Your task to perform on an android device: Open calendar and show me the second week of next month Image 0: 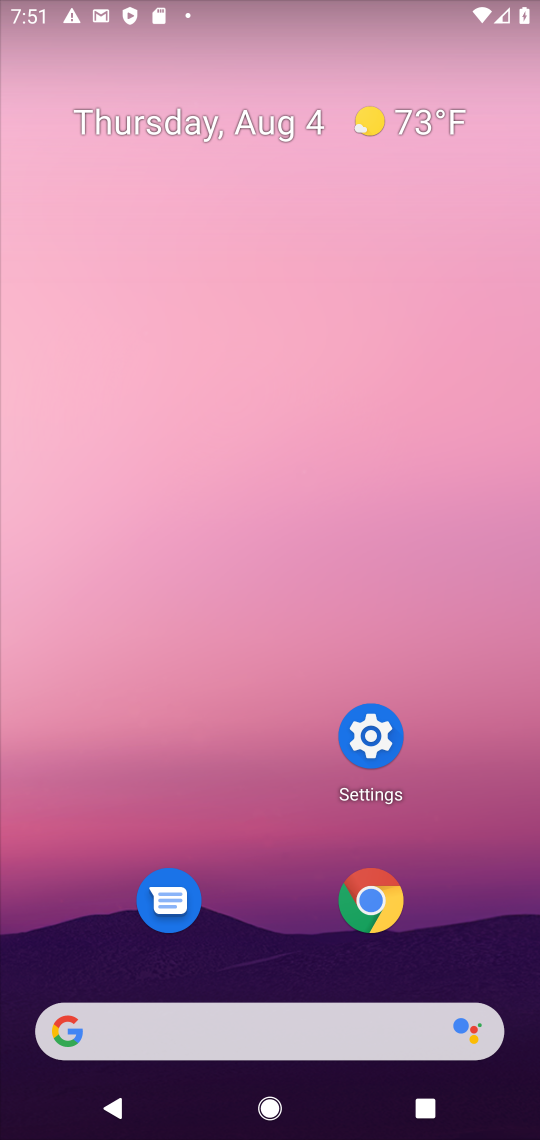
Step 0: drag from (289, 1032) to (536, 193)
Your task to perform on an android device: Open calendar and show me the second week of next month Image 1: 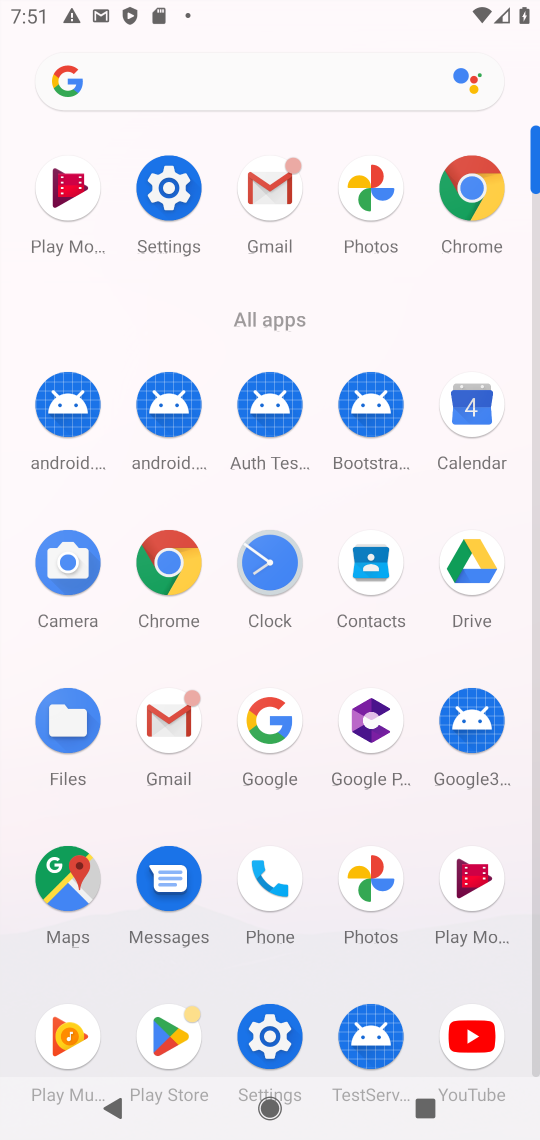
Step 1: click (480, 403)
Your task to perform on an android device: Open calendar and show me the second week of next month Image 2: 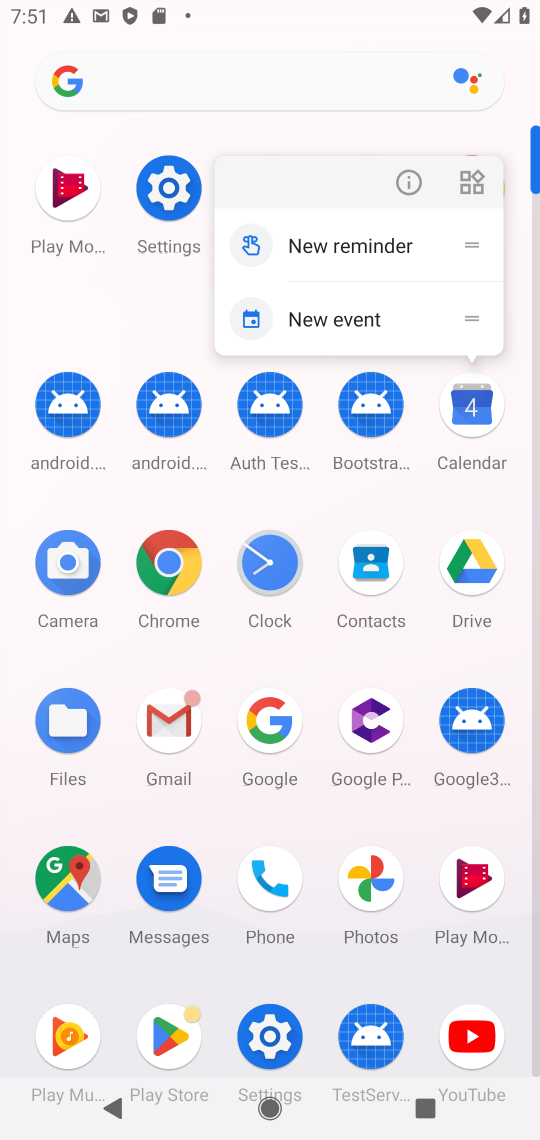
Step 2: click (463, 400)
Your task to perform on an android device: Open calendar and show me the second week of next month Image 3: 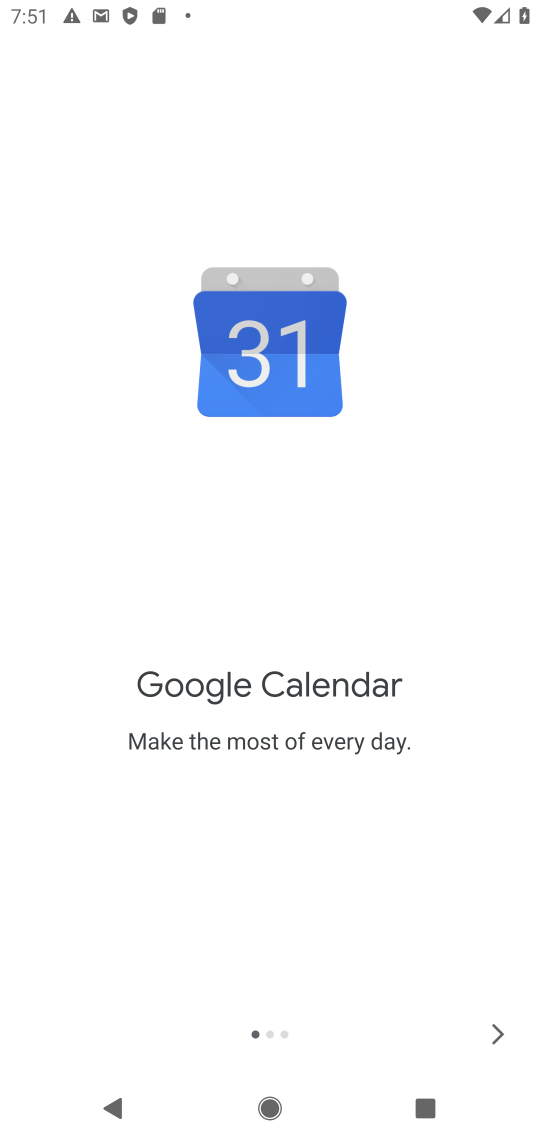
Step 3: click (495, 1031)
Your task to perform on an android device: Open calendar and show me the second week of next month Image 4: 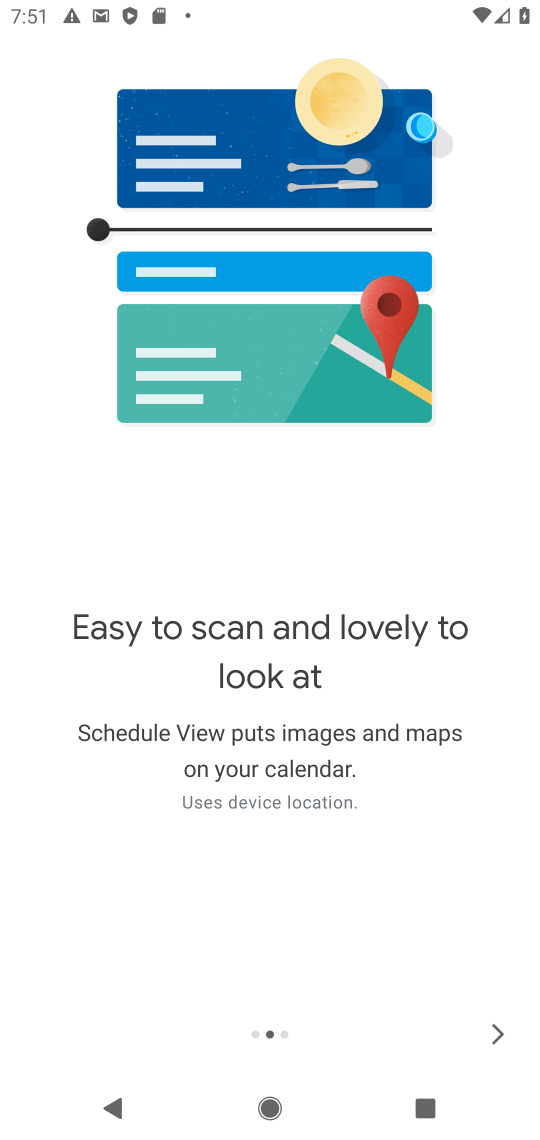
Step 4: click (492, 1026)
Your task to perform on an android device: Open calendar and show me the second week of next month Image 5: 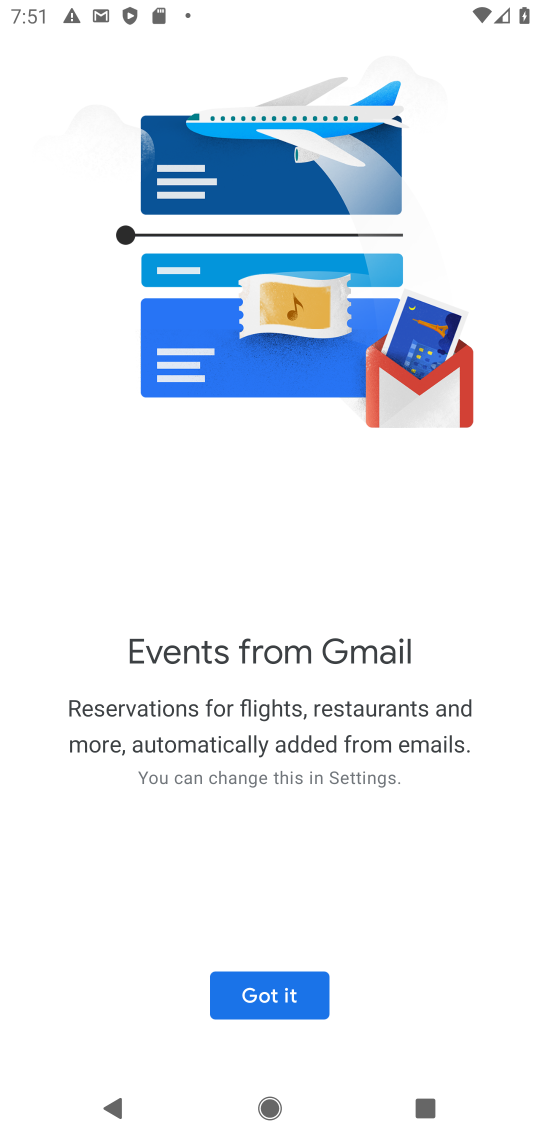
Step 5: click (279, 997)
Your task to perform on an android device: Open calendar and show me the second week of next month Image 6: 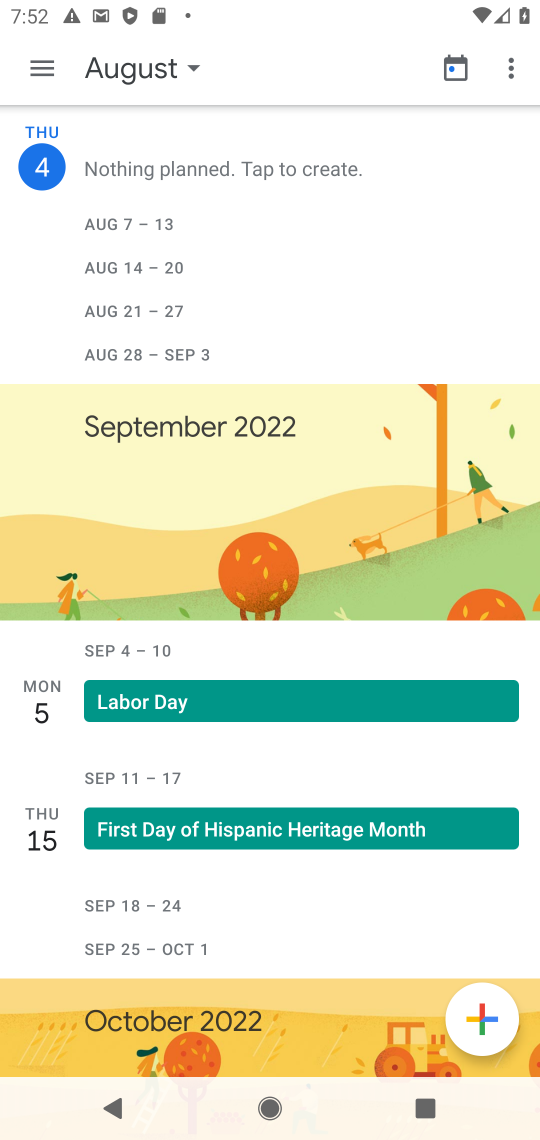
Step 6: click (142, 62)
Your task to perform on an android device: Open calendar and show me the second week of next month Image 7: 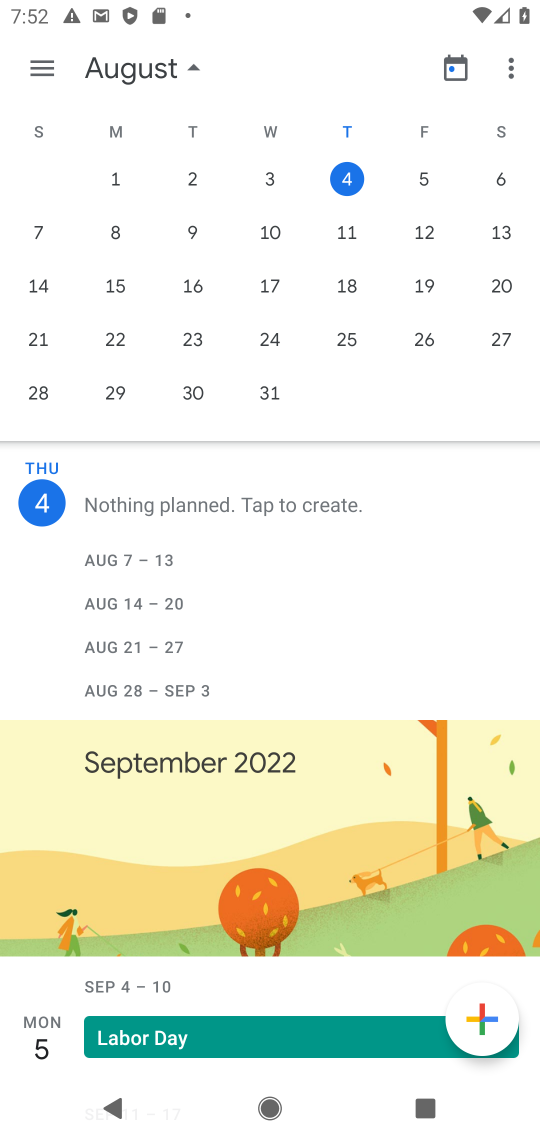
Step 7: drag from (435, 233) to (22, 253)
Your task to perform on an android device: Open calendar and show me the second week of next month Image 8: 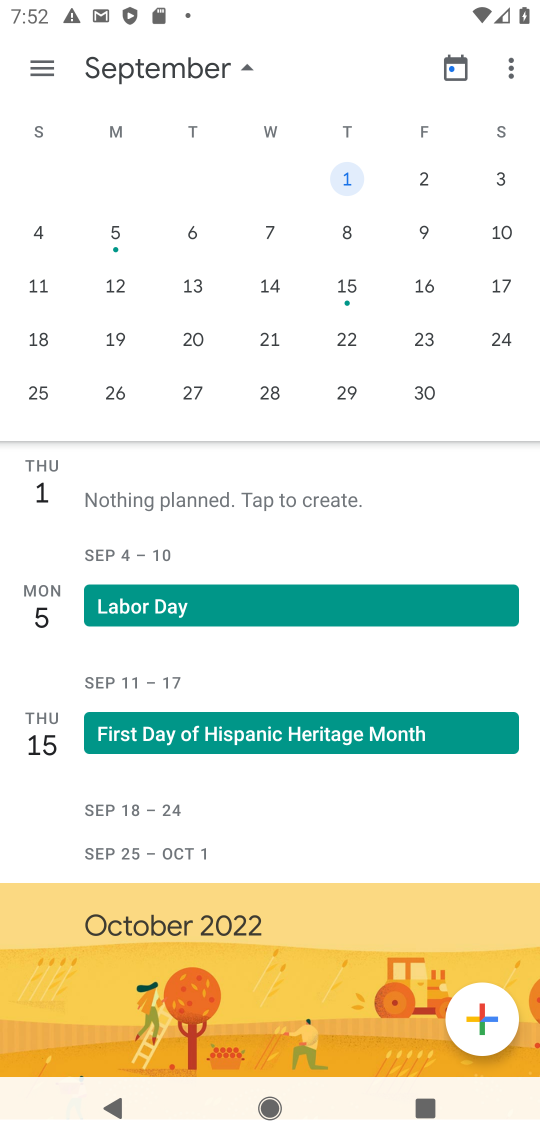
Step 8: click (41, 221)
Your task to perform on an android device: Open calendar and show me the second week of next month Image 9: 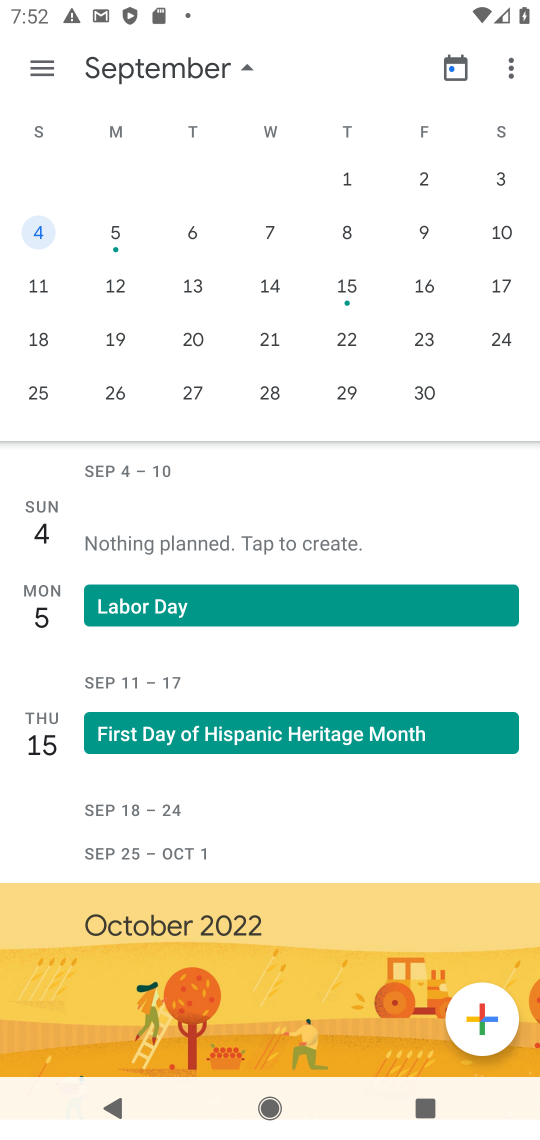
Step 9: click (36, 63)
Your task to perform on an android device: Open calendar and show me the second week of next month Image 10: 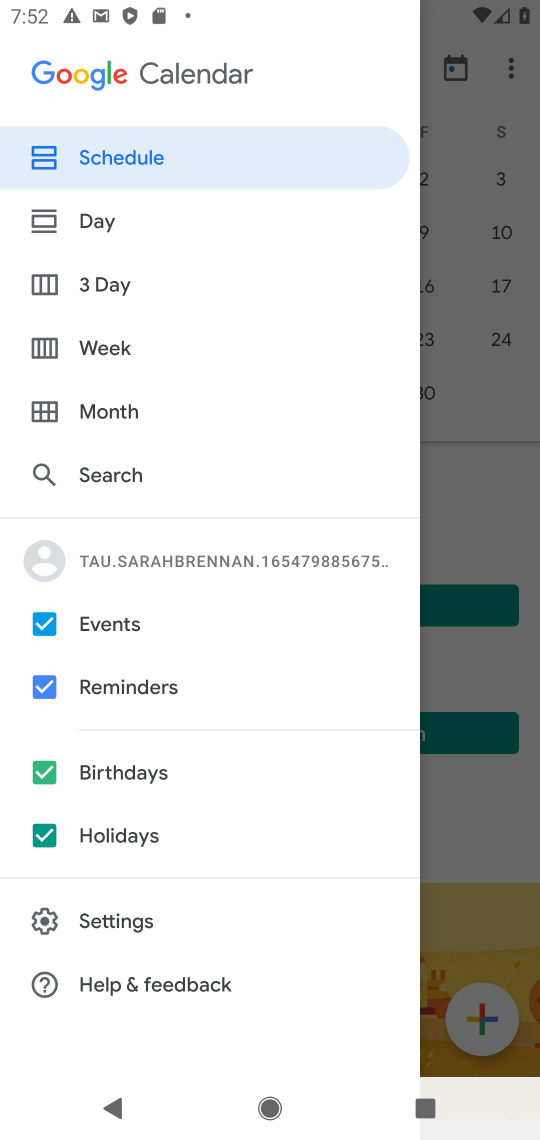
Step 10: click (123, 350)
Your task to perform on an android device: Open calendar and show me the second week of next month Image 11: 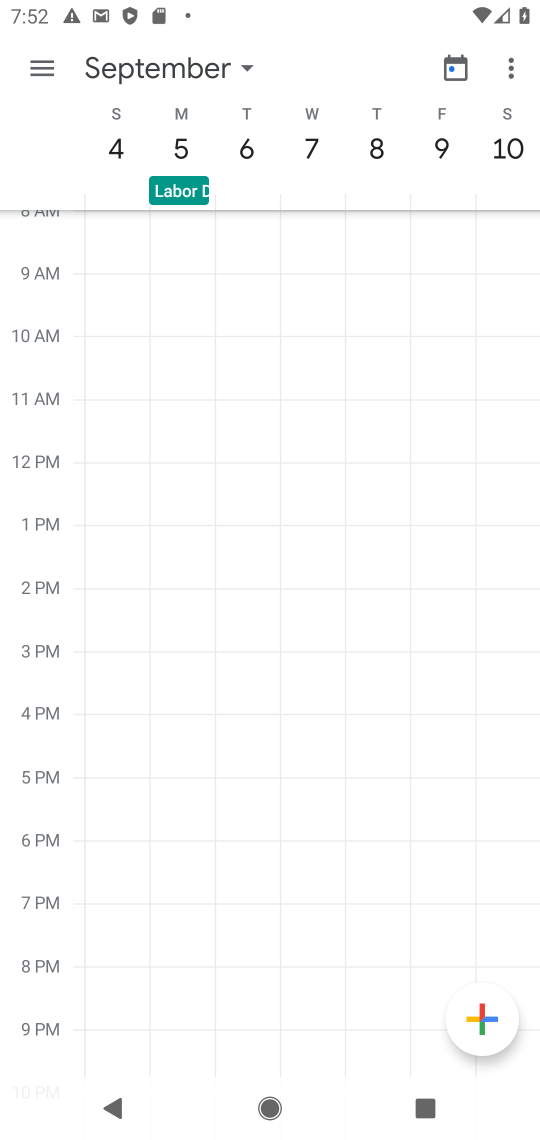
Step 11: task complete